Your task to perform on an android device: change your default location settings in chrome Image 0: 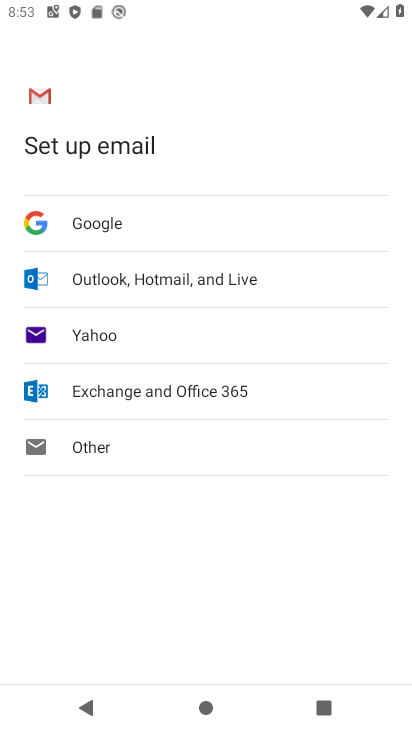
Step 0: press home button
Your task to perform on an android device: change your default location settings in chrome Image 1: 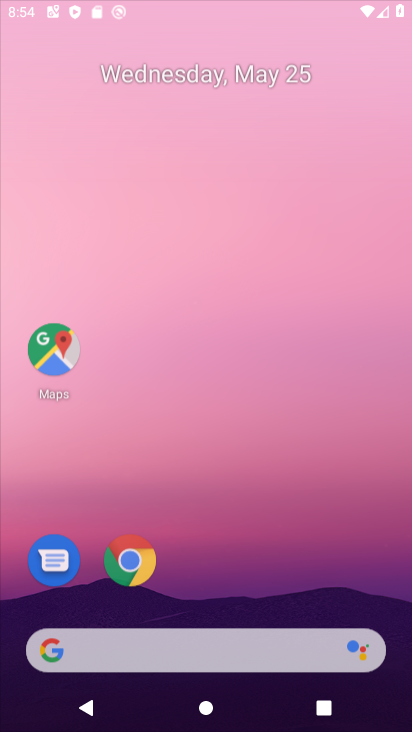
Step 1: press home button
Your task to perform on an android device: change your default location settings in chrome Image 2: 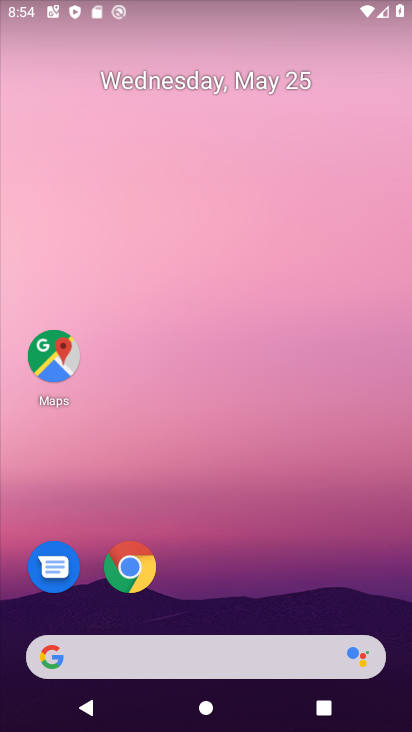
Step 2: click (132, 588)
Your task to perform on an android device: change your default location settings in chrome Image 3: 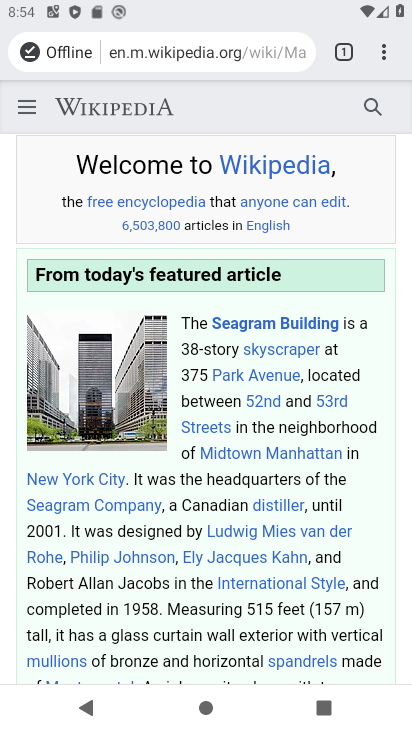
Step 3: click (380, 51)
Your task to perform on an android device: change your default location settings in chrome Image 4: 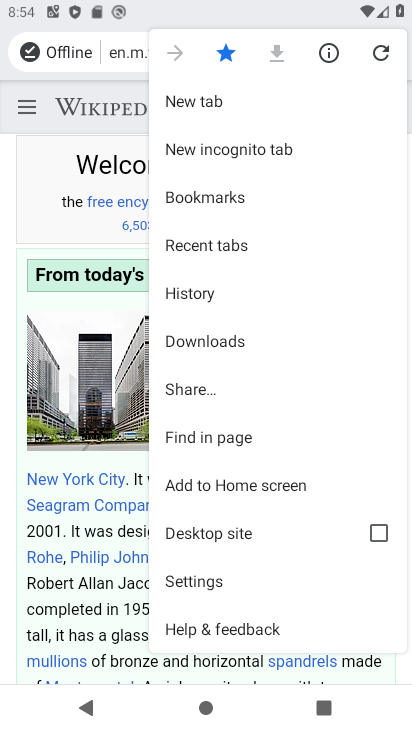
Step 4: click (250, 576)
Your task to perform on an android device: change your default location settings in chrome Image 5: 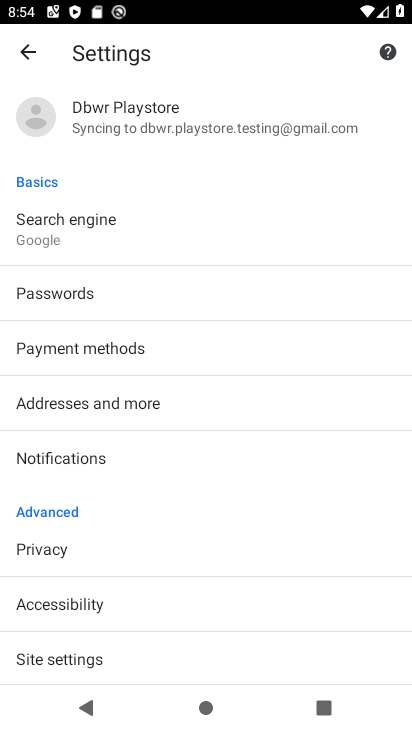
Step 5: click (232, 651)
Your task to perform on an android device: change your default location settings in chrome Image 6: 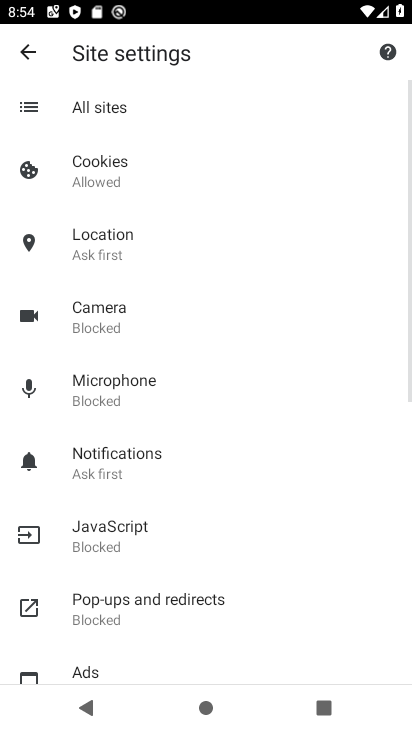
Step 6: click (193, 238)
Your task to perform on an android device: change your default location settings in chrome Image 7: 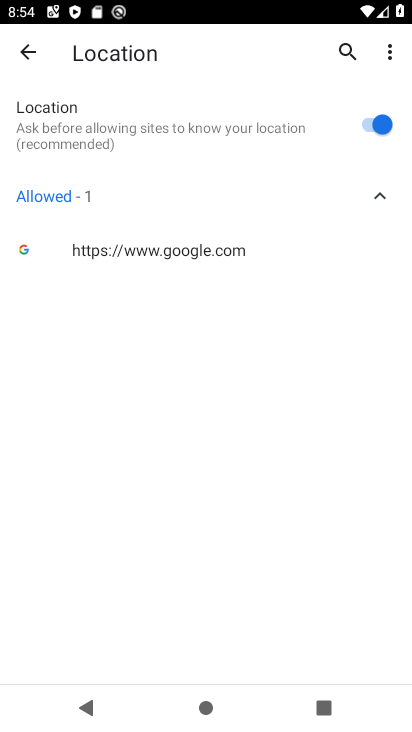
Step 7: click (379, 122)
Your task to perform on an android device: change your default location settings in chrome Image 8: 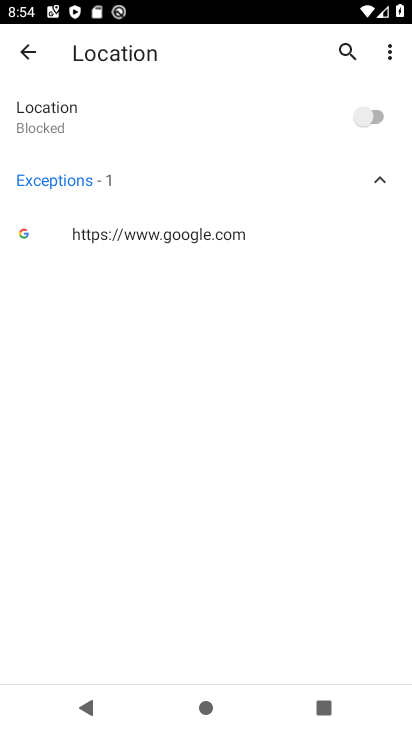
Step 8: task complete